Your task to perform on an android device: toggle pop-ups in chrome Image 0: 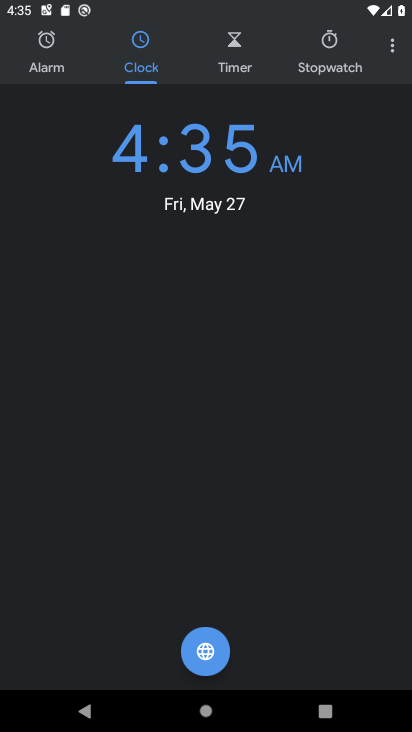
Step 0: press home button
Your task to perform on an android device: toggle pop-ups in chrome Image 1: 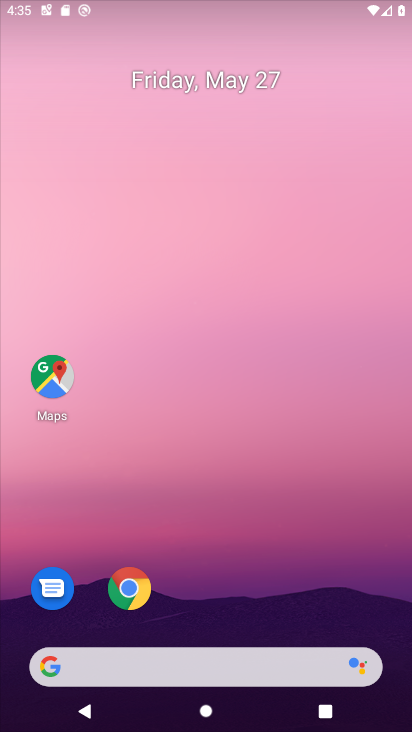
Step 1: click (133, 601)
Your task to perform on an android device: toggle pop-ups in chrome Image 2: 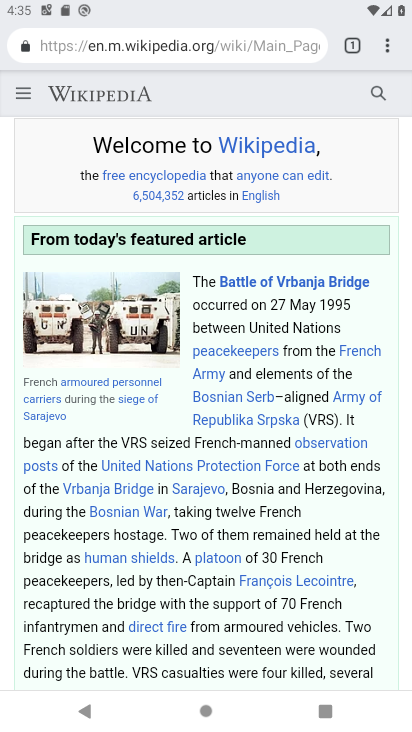
Step 2: click (390, 44)
Your task to perform on an android device: toggle pop-ups in chrome Image 3: 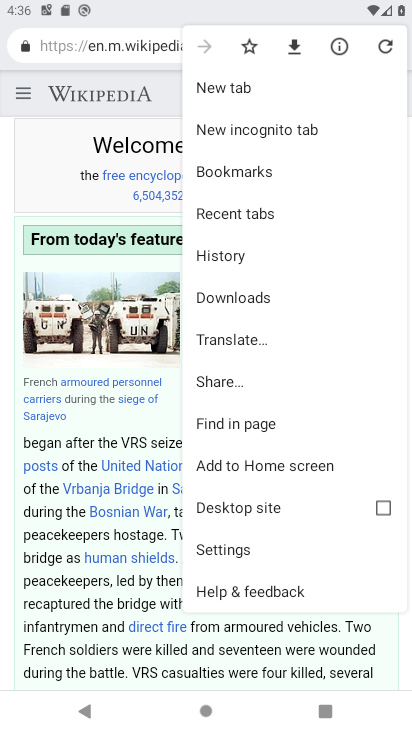
Step 3: click (240, 556)
Your task to perform on an android device: toggle pop-ups in chrome Image 4: 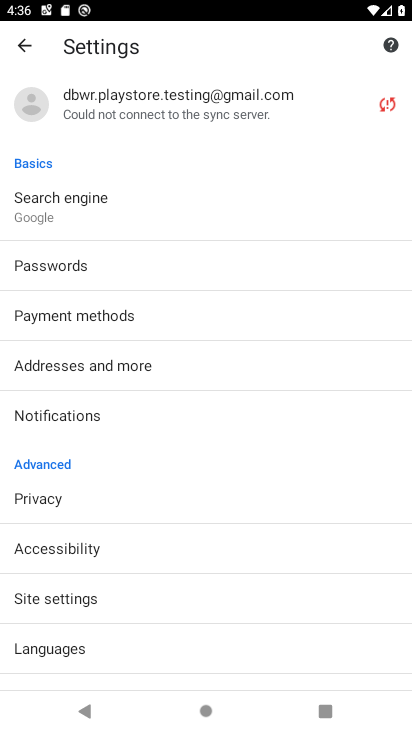
Step 4: click (72, 597)
Your task to perform on an android device: toggle pop-ups in chrome Image 5: 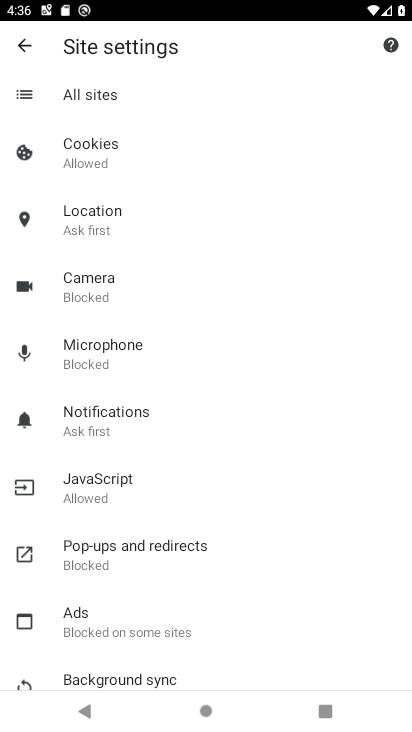
Step 5: click (122, 565)
Your task to perform on an android device: toggle pop-ups in chrome Image 6: 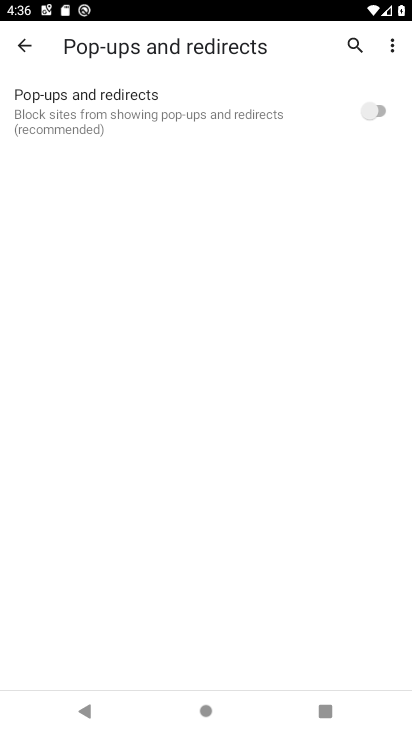
Step 6: click (384, 111)
Your task to perform on an android device: toggle pop-ups in chrome Image 7: 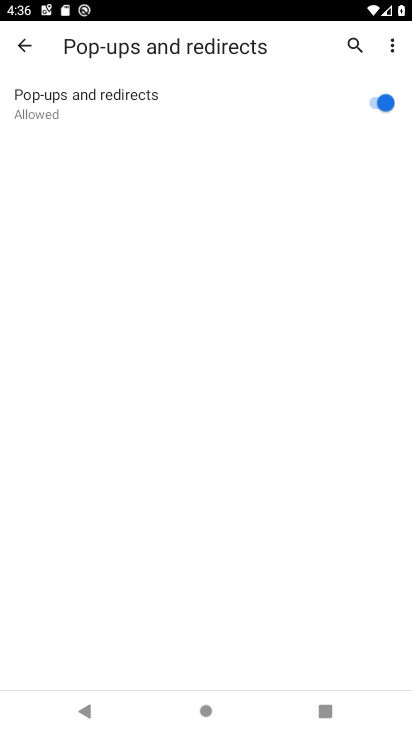
Step 7: task complete